Your task to perform on an android device: Search for a new lipstick on Sephora Image 0: 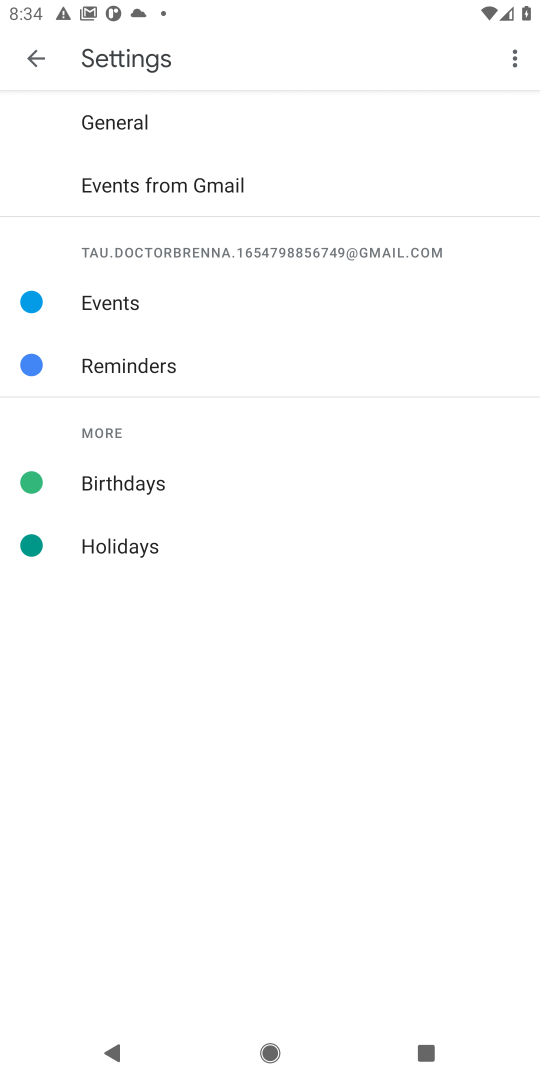
Step 0: press home button
Your task to perform on an android device: Search for a new lipstick on Sephora Image 1: 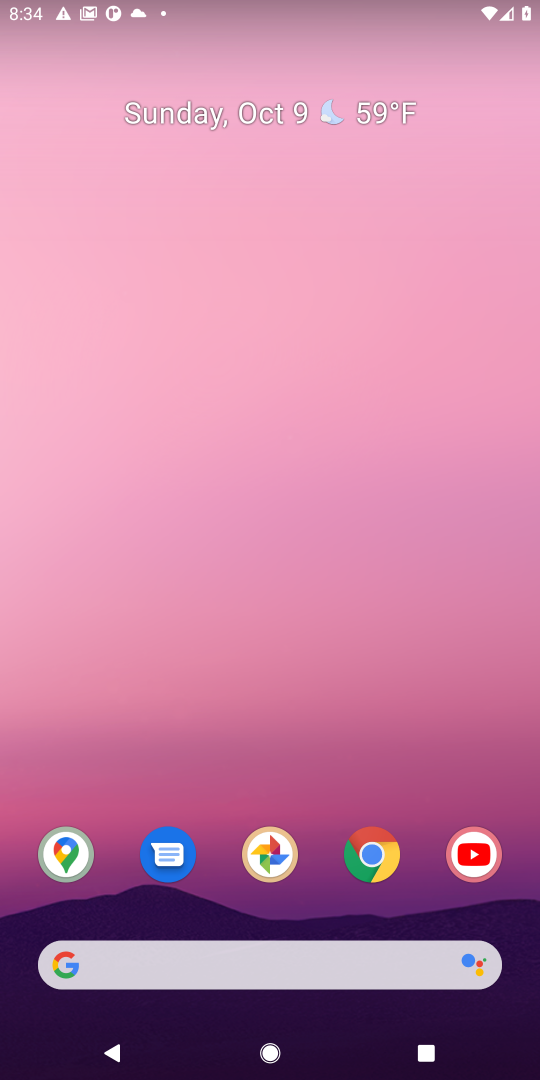
Step 1: drag from (316, 943) to (331, 138)
Your task to perform on an android device: Search for a new lipstick on Sephora Image 2: 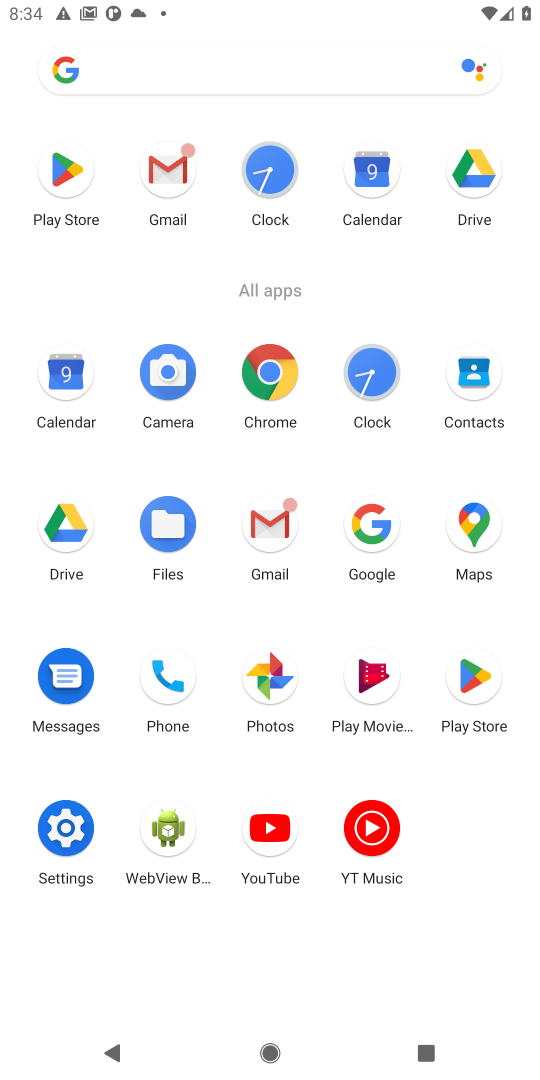
Step 2: click (270, 370)
Your task to perform on an android device: Search for a new lipstick on Sephora Image 3: 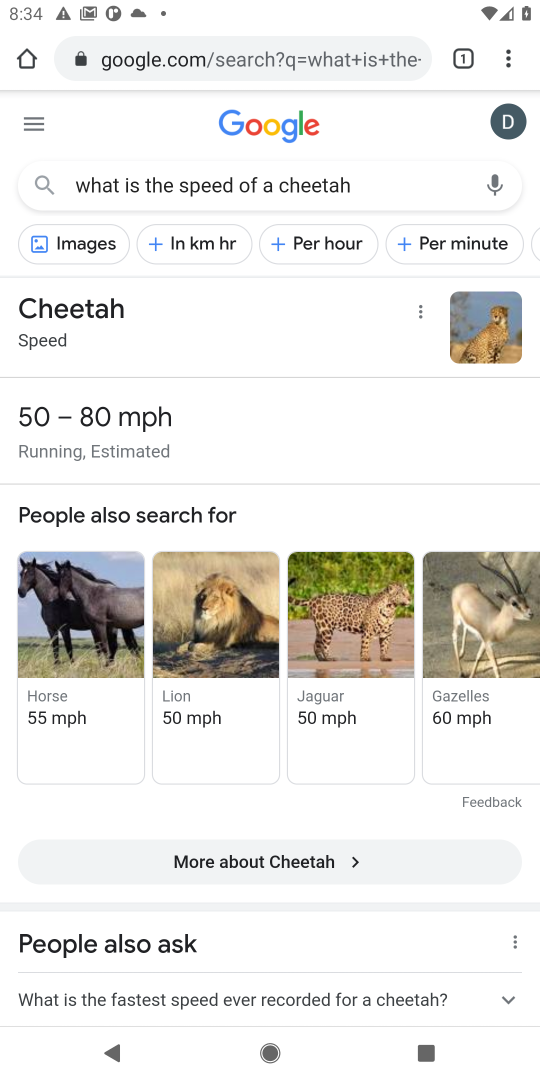
Step 3: click (386, 189)
Your task to perform on an android device: Search for a new lipstick on Sephora Image 4: 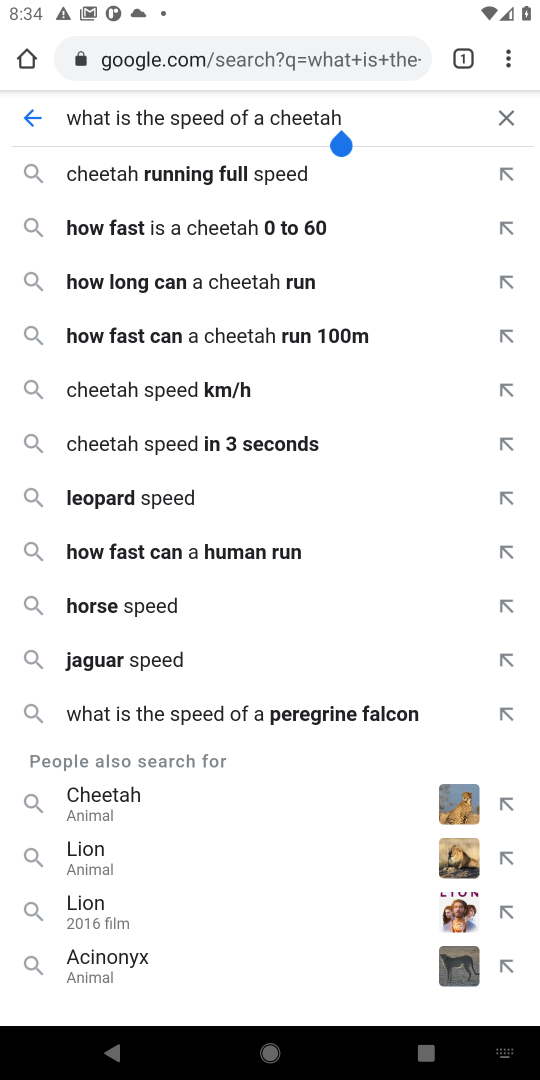
Step 4: click (504, 110)
Your task to perform on an android device: Search for a new lipstick on Sephora Image 5: 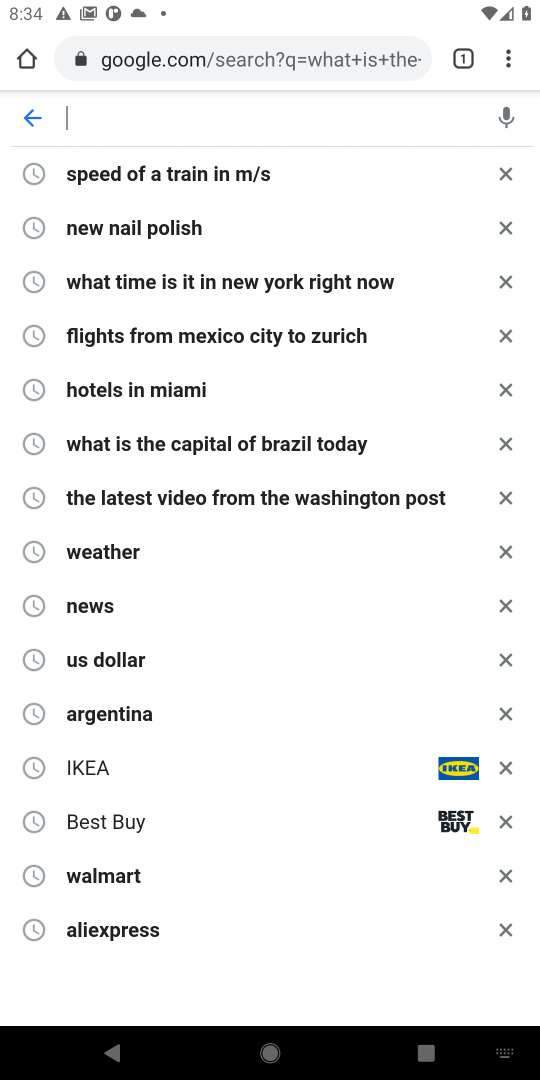
Step 5: type "new lipstick on Sephora"
Your task to perform on an android device: Search for a new lipstick on Sephora Image 6: 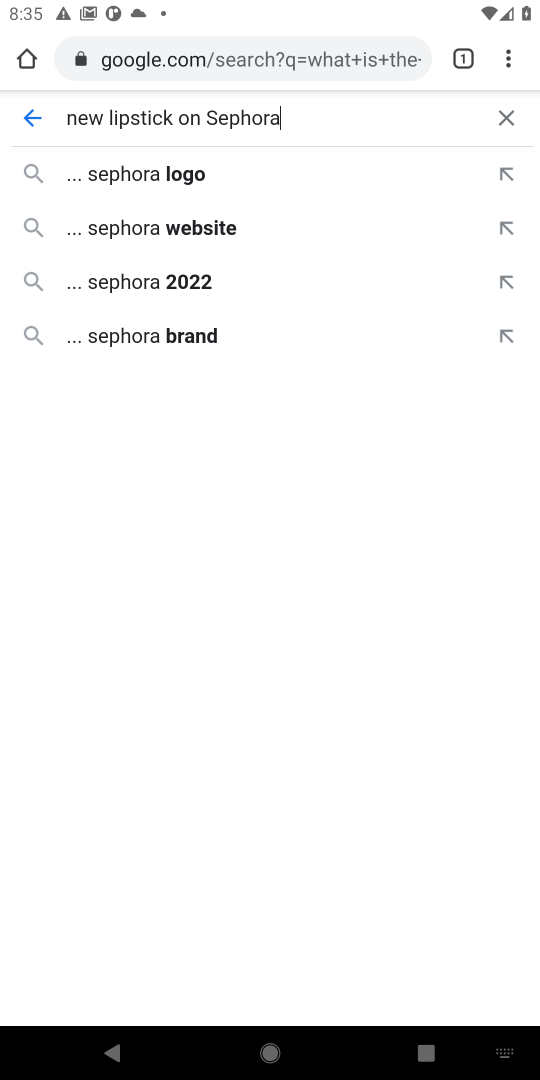
Step 6: click (184, 286)
Your task to perform on an android device: Search for a new lipstick on Sephora Image 7: 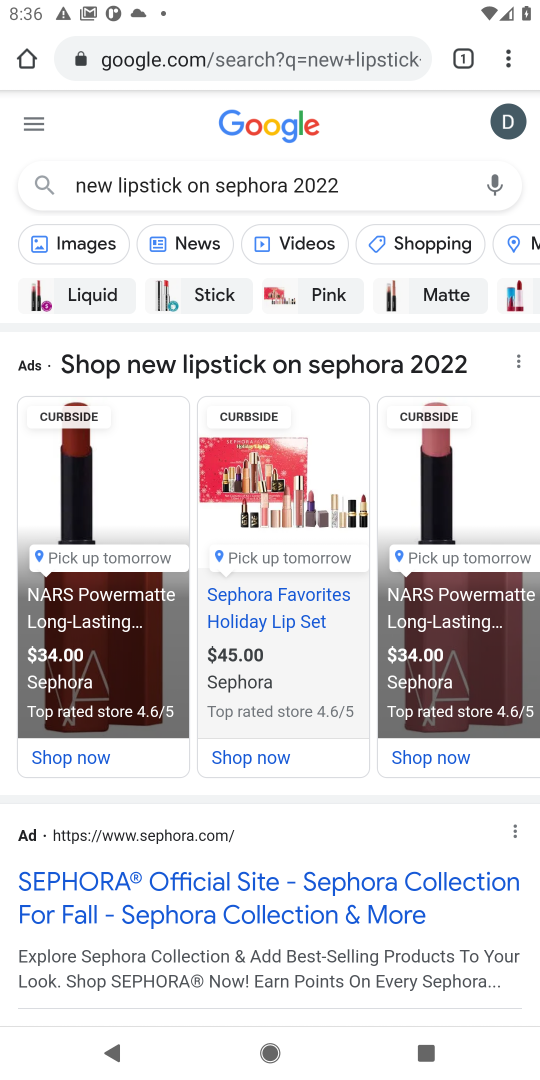
Step 7: task complete